Your task to perform on an android device: toggle priority inbox in the gmail app Image 0: 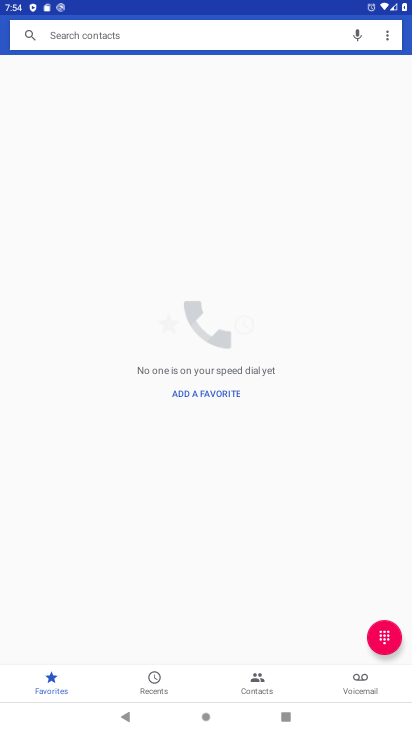
Step 0: press home button
Your task to perform on an android device: toggle priority inbox in the gmail app Image 1: 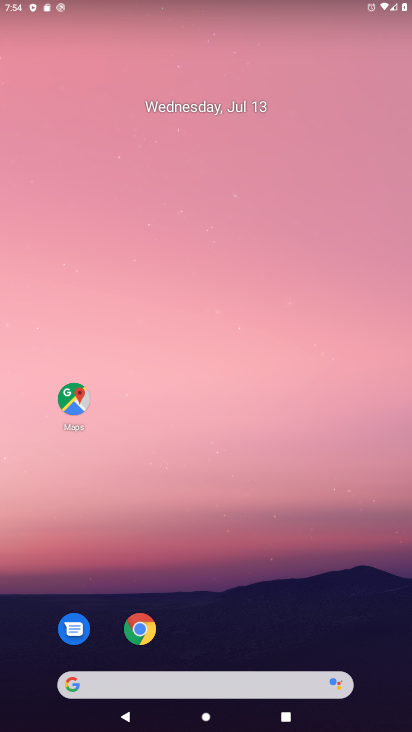
Step 1: drag from (43, 715) to (212, 90)
Your task to perform on an android device: toggle priority inbox in the gmail app Image 2: 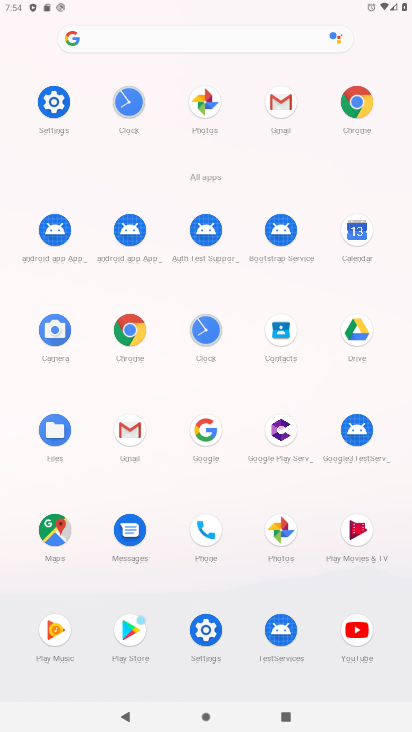
Step 2: click (124, 436)
Your task to perform on an android device: toggle priority inbox in the gmail app Image 3: 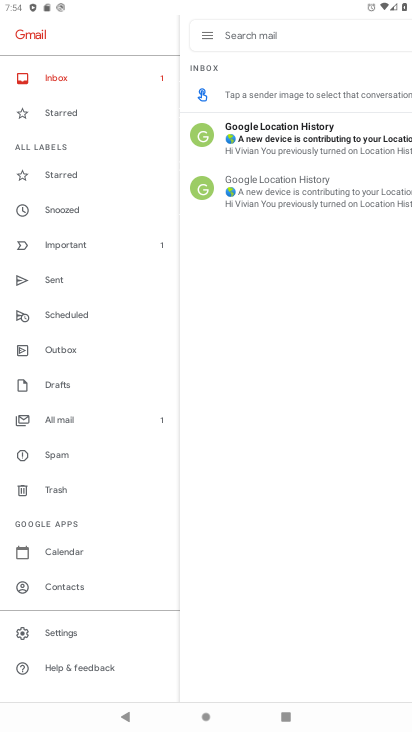
Step 3: click (57, 630)
Your task to perform on an android device: toggle priority inbox in the gmail app Image 4: 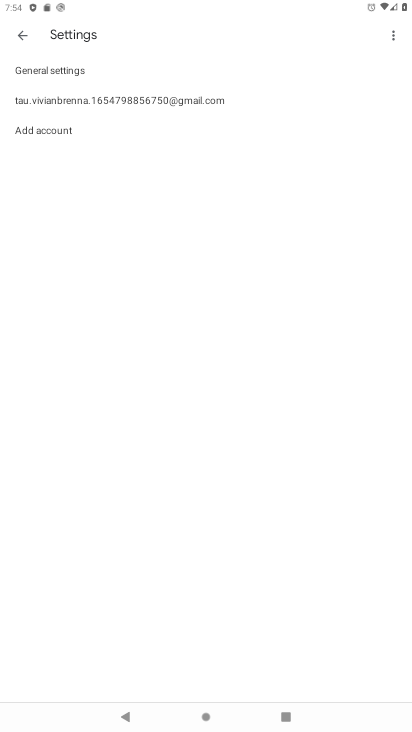
Step 4: click (113, 95)
Your task to perform on an android device: toggle priority inbox in the gmail app Image 5: 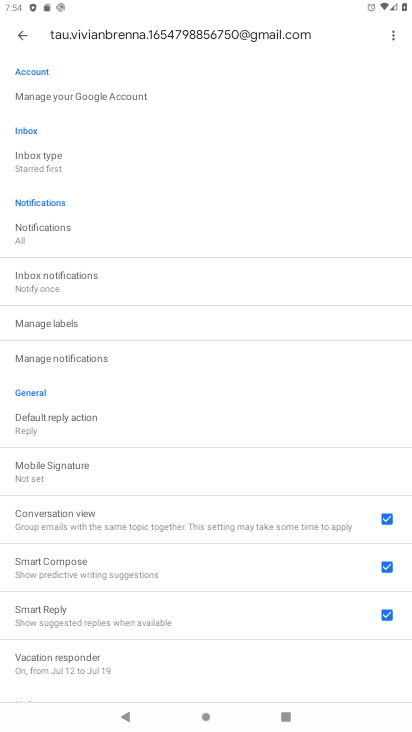
Step 5: click (66, 158)
Your task to perform on an android device: toggle priority inbox in the gmail app Image 6: 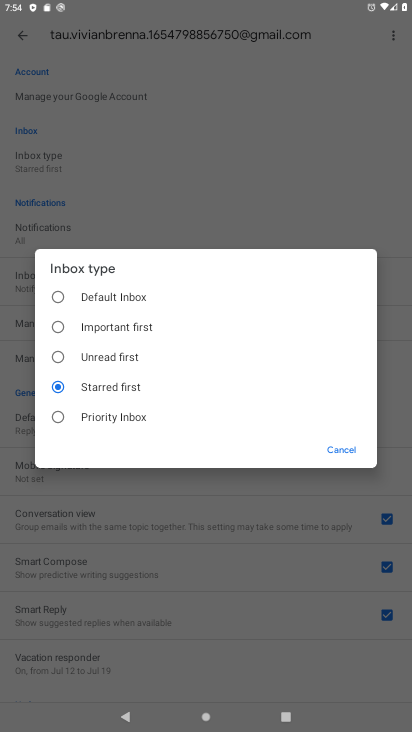
Step 6: click (110, 418)
Your task to perform on an android device: toggle priority inbox in the gmail app Image 7: 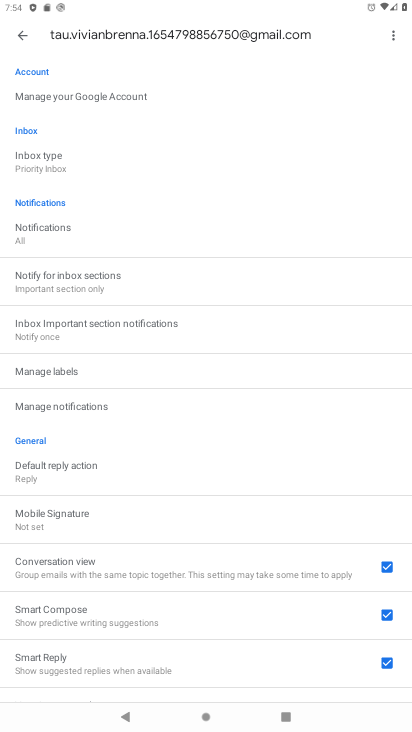
Step 7: task complete